Your task to perform on an android device: check google app version Image 0: 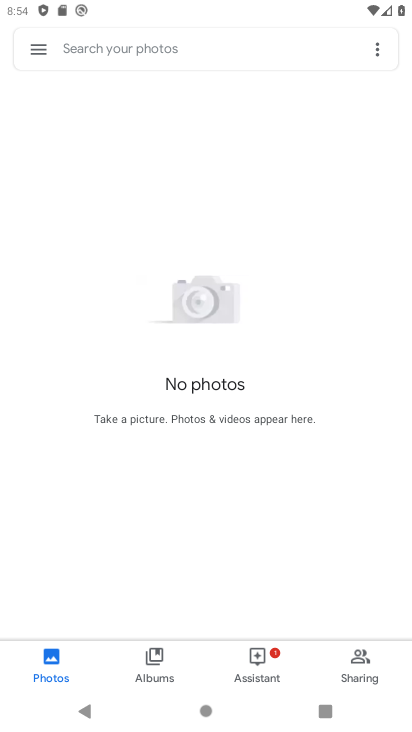
Step 0: press home button
Your task to perform on an android device: check google app version Image 1: 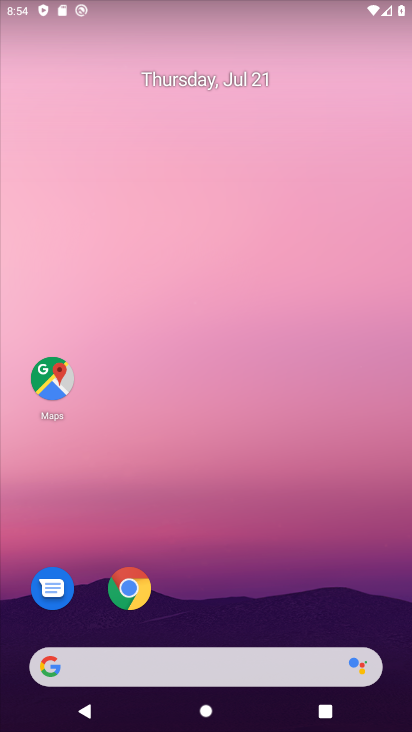
Step 1: drag from (375, 706) to (171, 129)
Your task to perform on an android device: check google app version Image 2: 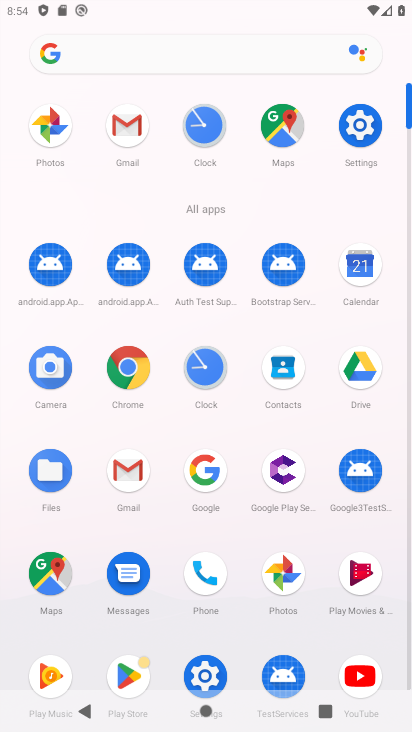
Step 2: click (202, 471)
Your task to perform on an android device: check google app version Image 3: 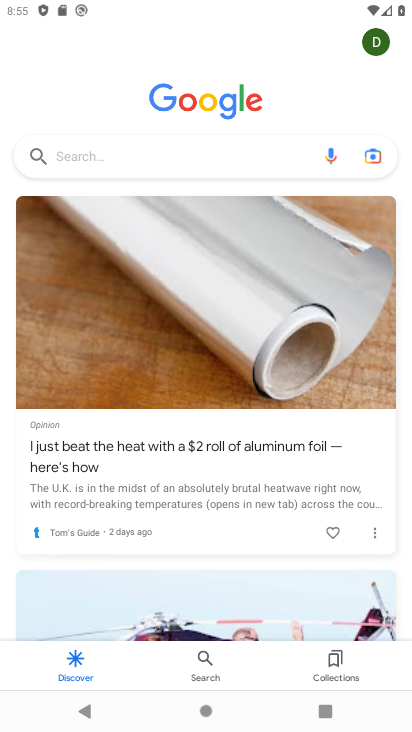
Step 3: click (331, 657)
Your task to perform on an android device: check google app version Image 4: 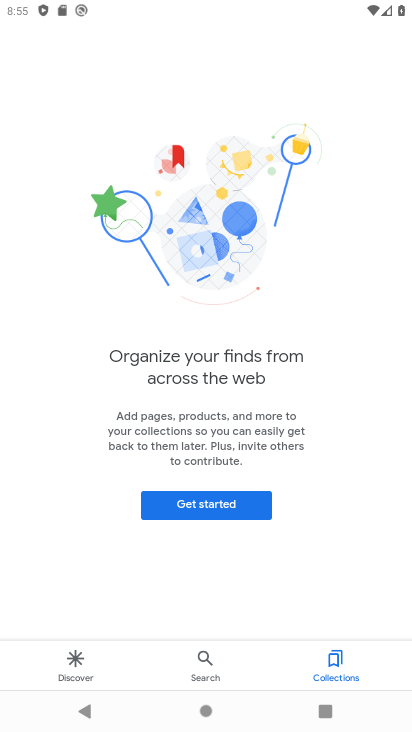
Step 4: click (268, 511)
Your task to perform on an android device: check google app version Image 5: 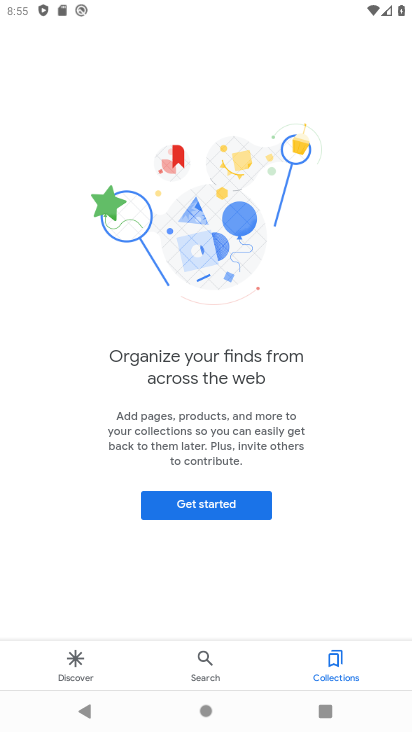
Step 5: click (223, 507)
Your task to perform on an android device: check google app version Image 6: 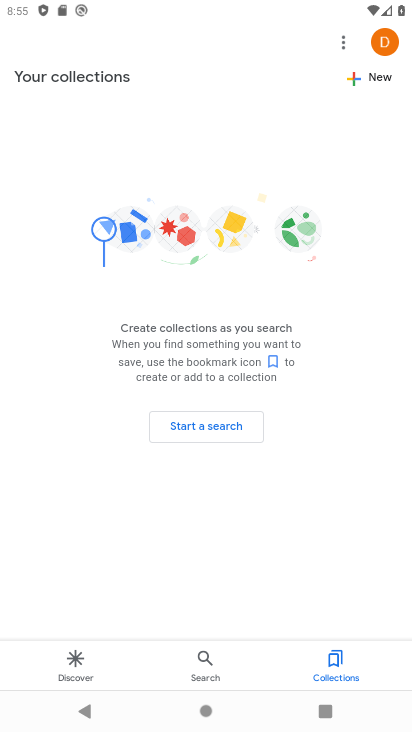
Step 6: task complete